Your task to perform on an android device: Open Google Image 0: 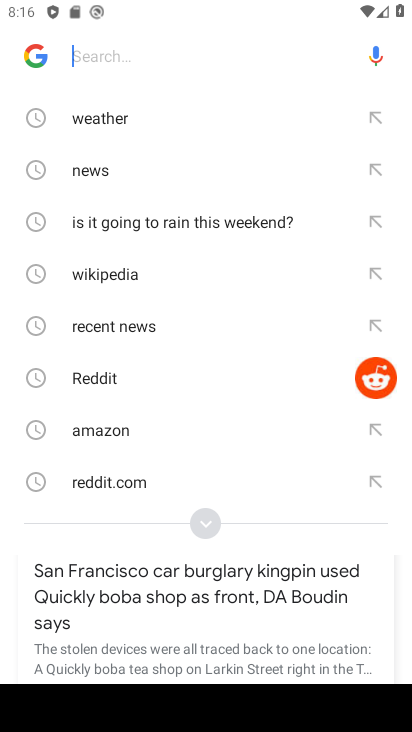
Step 0: press home button
Your task to perform on an android device: Open Google Image 1: 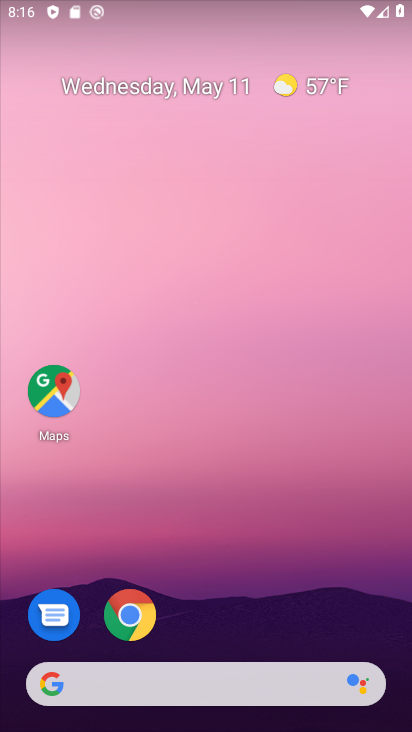
Step 1: drag from (229, 581) to (279, 126)
Your task to perform on an android device: Open Google Image 2: 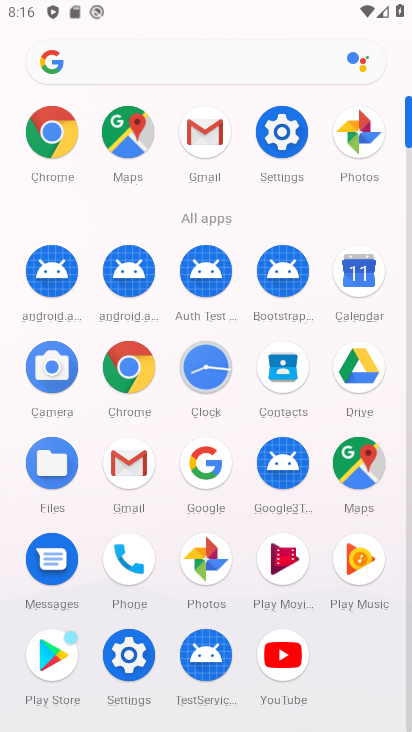
Step 2: click (217, 473)
Your task to perform on an android device: Open Google Image 3: 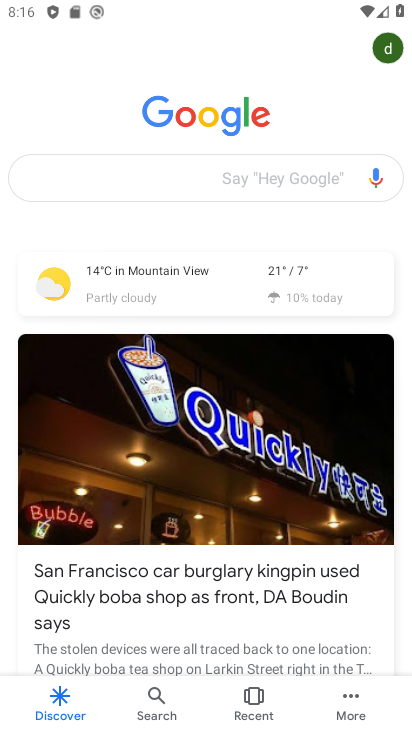
Step 3: task complete